Your task to perform on an android device: clear all cookies in the chrome app Image 0: 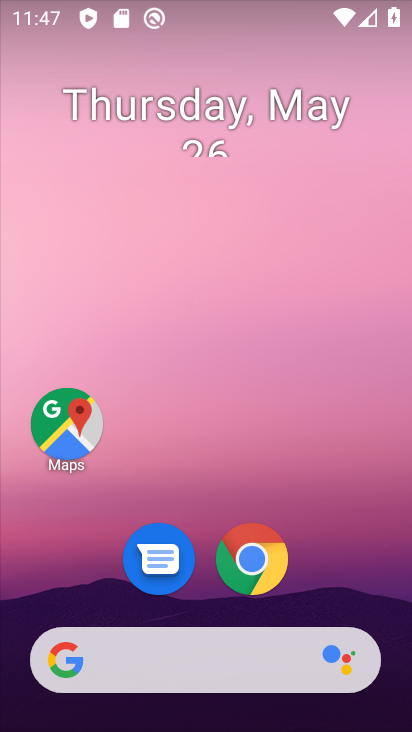
Step 0: click (274, 554)
Your task to perform on an android device: clear all cookies in the chrome app Image 1: 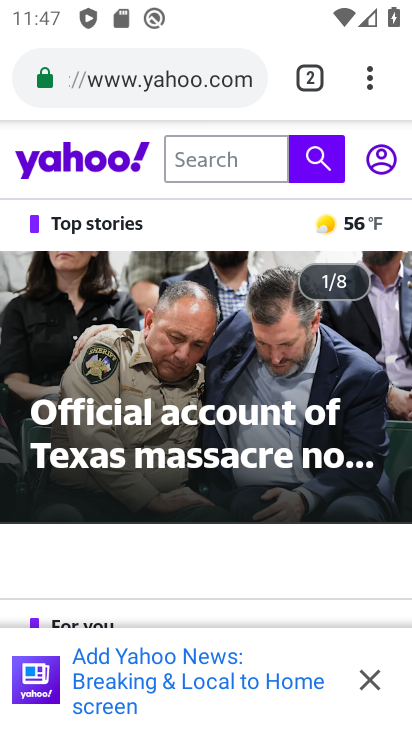
Step 1: click (367, 81)
Your task to perform on an android device: clear all cookies in the chrome app Image 2: 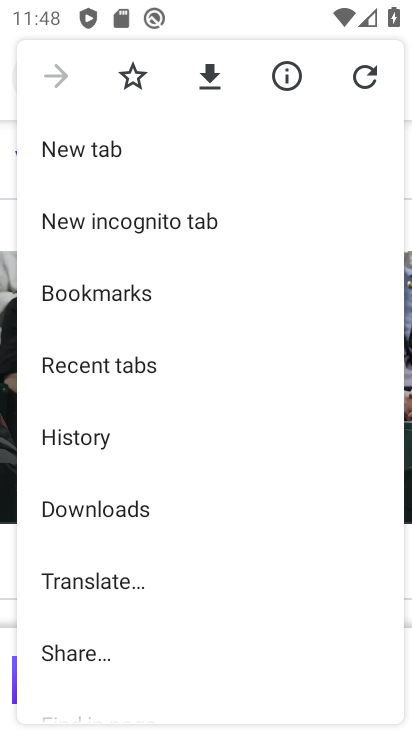
Step 2: drag from (208, 638) to (238, 186)
Your task to perform on an android device: clear all cookies in the chrome app Image 3: 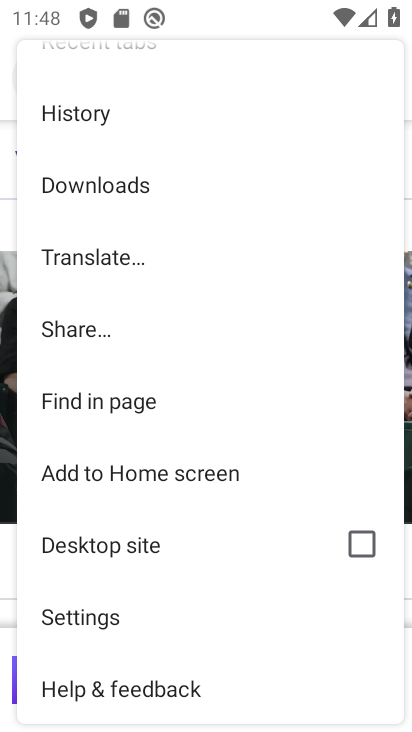
Step 3: click (193, 607)
Your task to perform on an android device: clear all cookies in the chrome app Image 4: 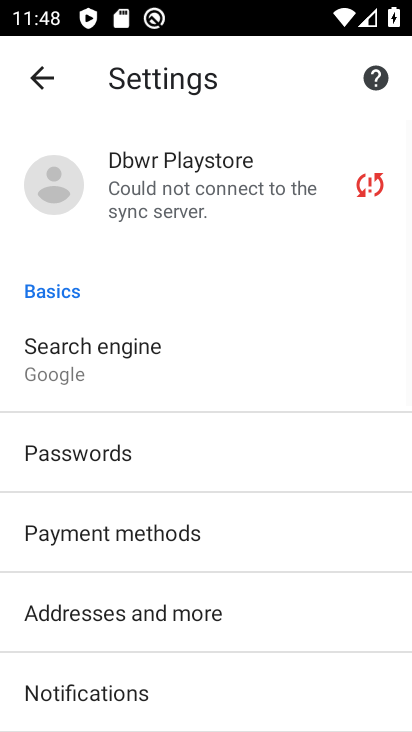
Step 4: drag from (223, 630) to (239, 271)
Your task to perform on an android device: clear all cookies in the chrome app Image 5: 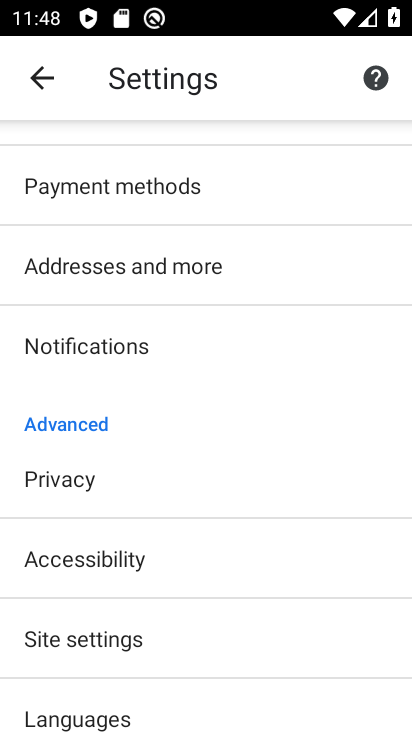
Step 5: click (161, 630)
Your task to perform on an android device: clear all cookies in the chrome app Image 6: 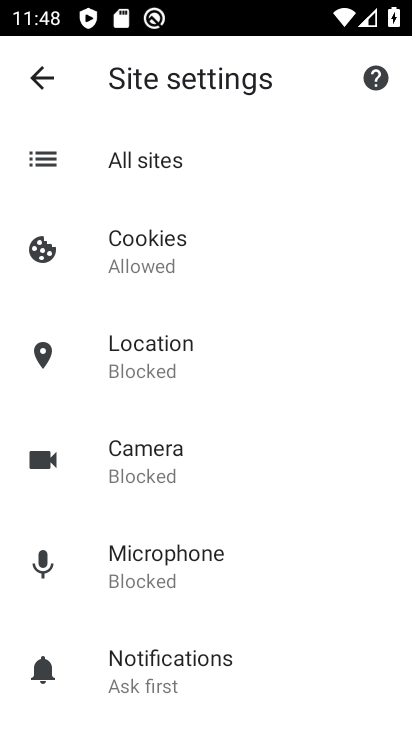
Step 6: click (188, 258)
Your task to perform on an android device: clear all cookies in the chrome app Image 7: 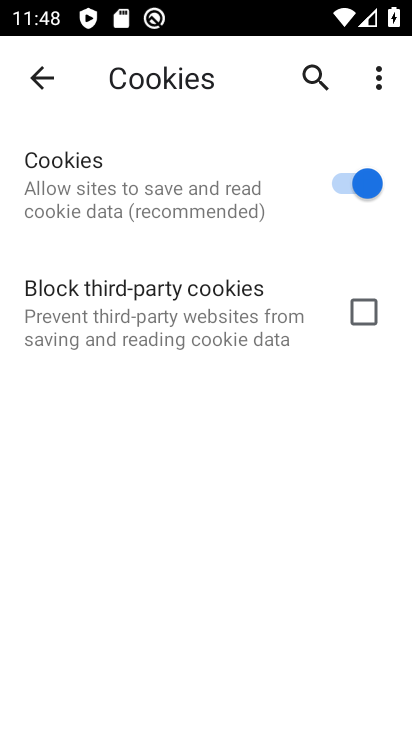
Step 7: click (374, 75)
Your task to perform on an android device: clear all cookies in the chrome app Image 8: 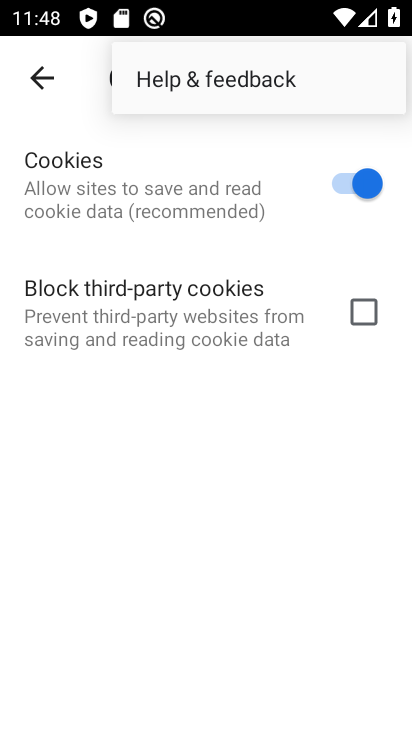
Step 8: click (186, 201)
Your task to perform on an android device: clear all cookies in the chrome app Image 9: 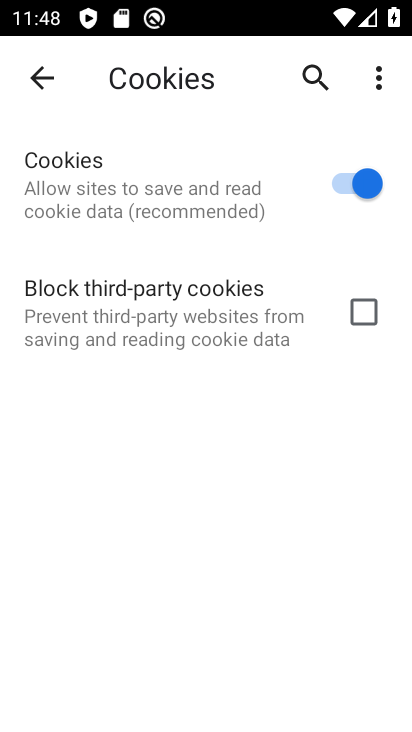
Step 9: click (186, 201)
Your task to perform on an android device: clear all cookies in the chrome app Image 10: 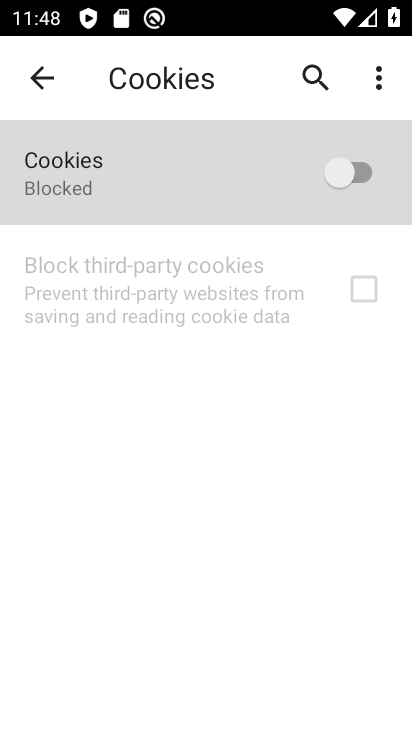
Step 10: click (186, 201)
Your task to perform on an android device: clear all cookies in the chrome app Image 11: 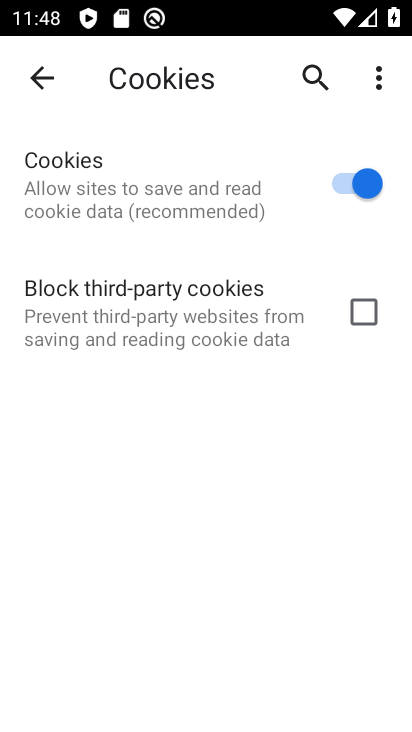
Step 11: click (186, 201)
Your task to perform on an android device: clear all cookies in the chrome app Image 12: 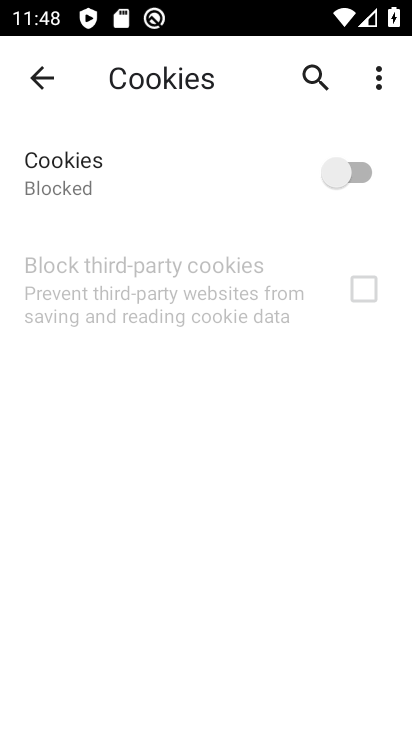
Step 12: click (186, 201)
Your task to perform on an android device: clear all cookies in the chrome app Image 13: 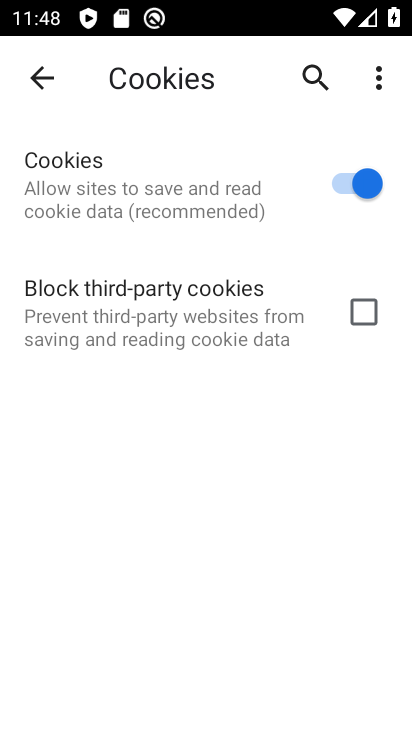
Step 13: click (159, 320)
Your task to perform on an android device: clear all cookies in the chrome app Image 14: 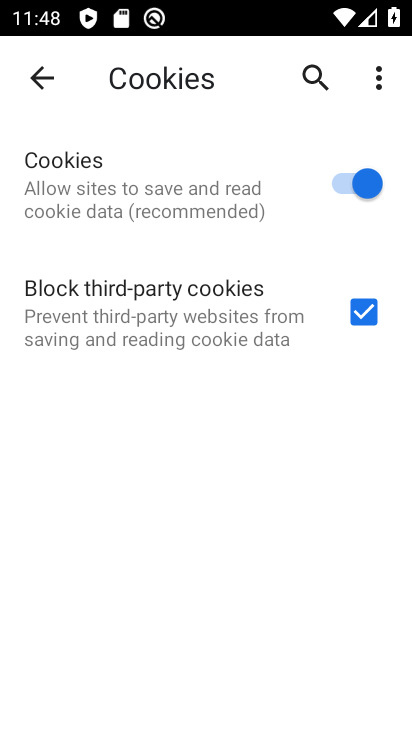
Step 14: click (159, 320)
Your task to perform on an android device: clear all cookies in the chrome app Image 15: 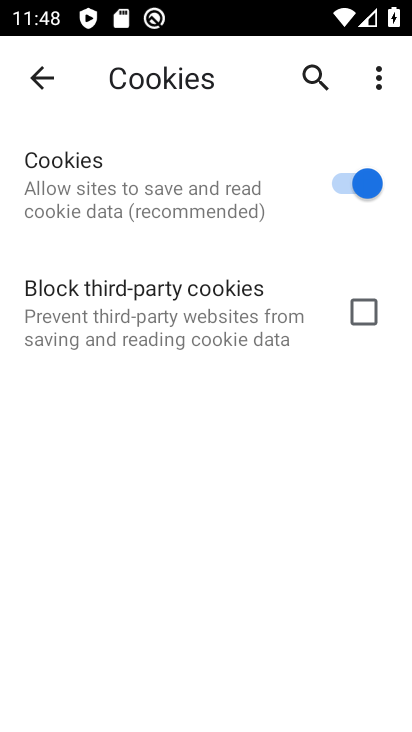
Step 15: task complete